Your task to perform on an android device: toggle wifi Image 0: 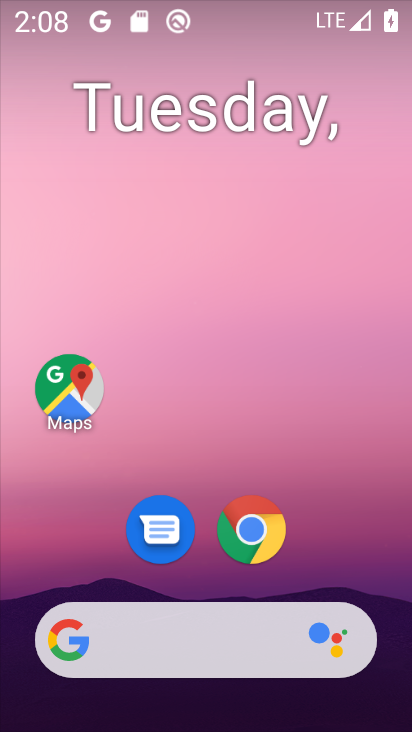
Step 0: drag from (357, 309) to (339, 166)
Your task to perform on an android device: toggle wifi Image 1: 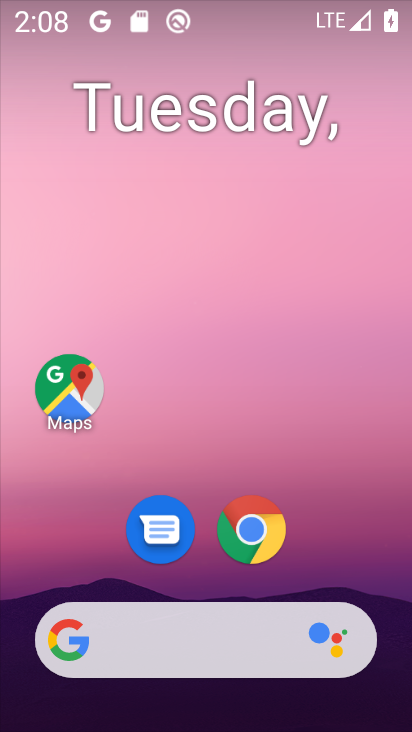
Step 1: drag from (340, 294) to (301, 96)
Your task to perform on an android device: toggle wifi Image 2: 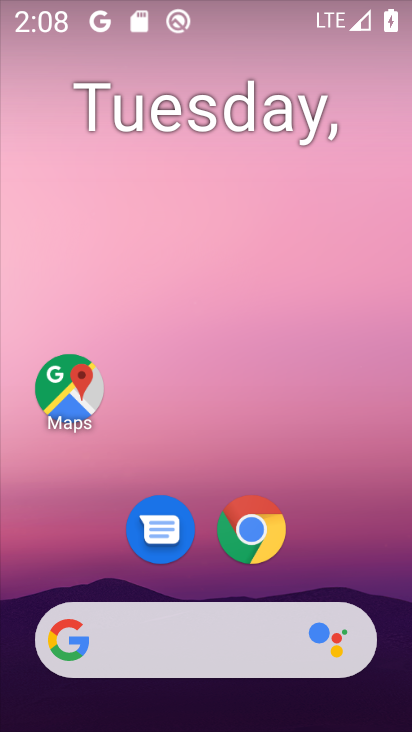
Step 2: drag from (376, 486) to (332, 76)
Your task to perform on an android device: toggle wifi Image 3: 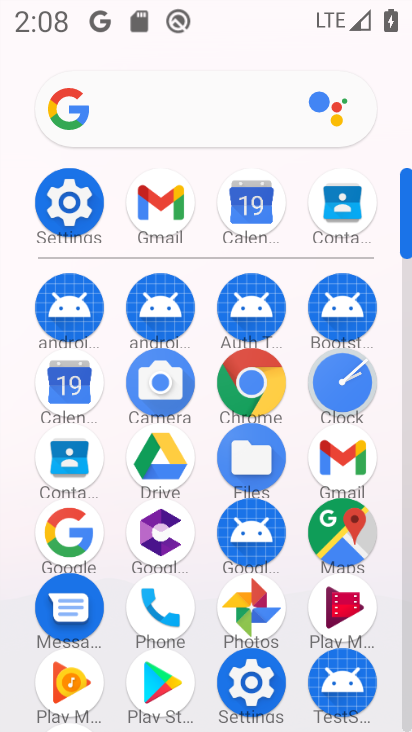
Step 3: click (73, 199)
Your task to perform on an android device: toggle wifi Image 4: 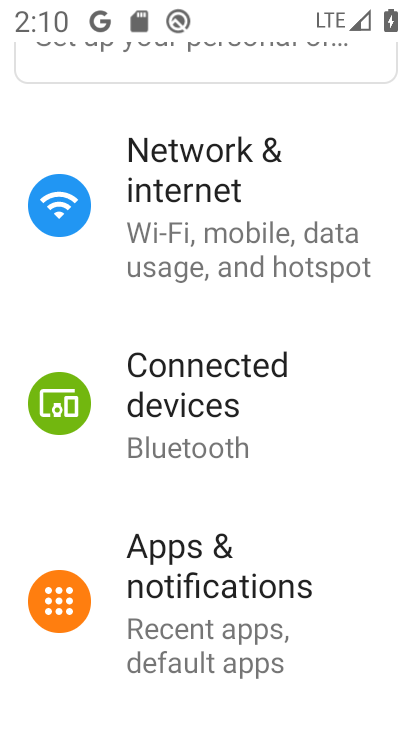
Step 4: drag from (334, 536) to (321, 254)
Your task to perform on an android device: toggle wifi Image 5: 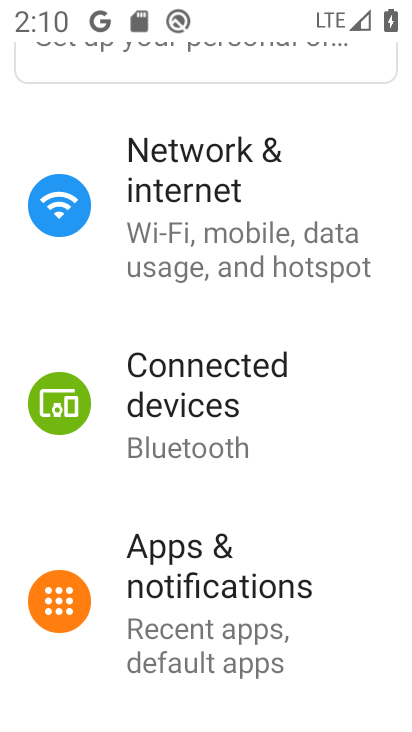
Step 5: drag from (355, 299) to (343, 244)
Your task to perform on an android device: toggle wifi Image 6: 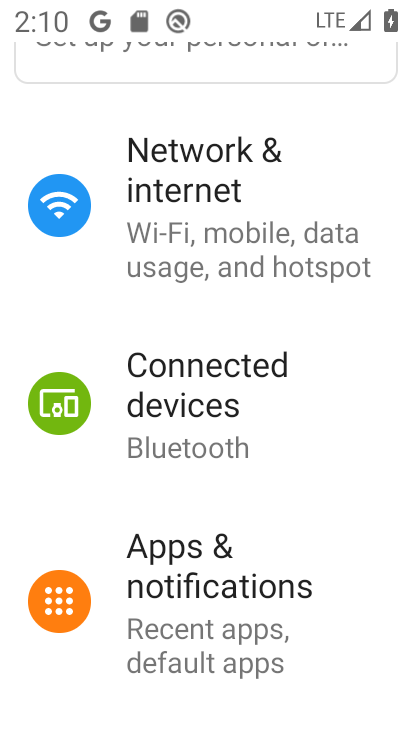
Step 6: click (188, 192)
Your task to perform on an android device: toggle wifi Image 7: 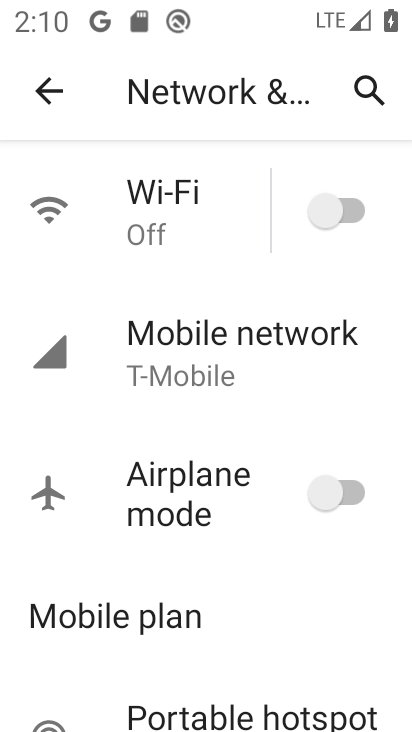
Step 7: click (339, 207)
Your task to perform on an android device: toggle wifi Image 8: 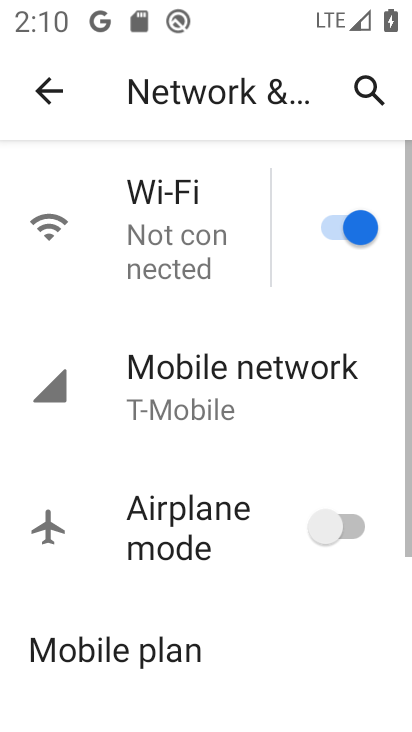
Step 8: task complete